Your task to perform on an android device: Open eBay Image 0: 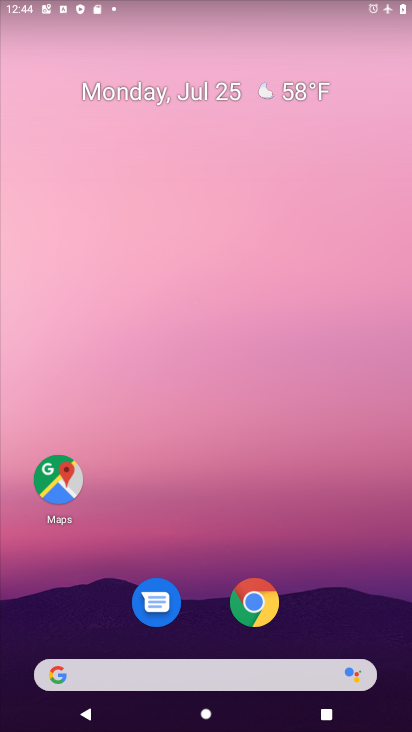
Step 0: click (245, 590)
Your task to perform on an android device: Open eBay Image 1: 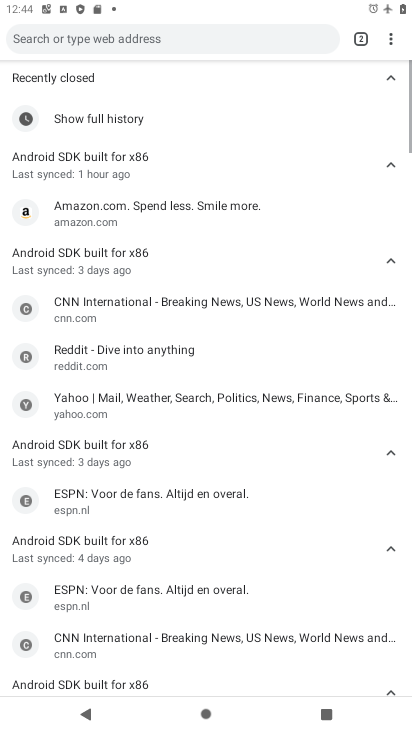
Step 1: click (355, 41)
Your task to perform on an android device: Open eBay Image 2: 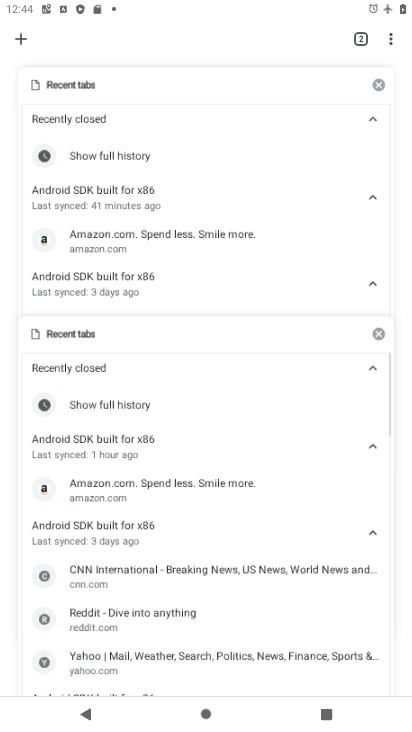
Step 2: click (10, 51)
Your task to perform on an android device: Open eBay Image 3: 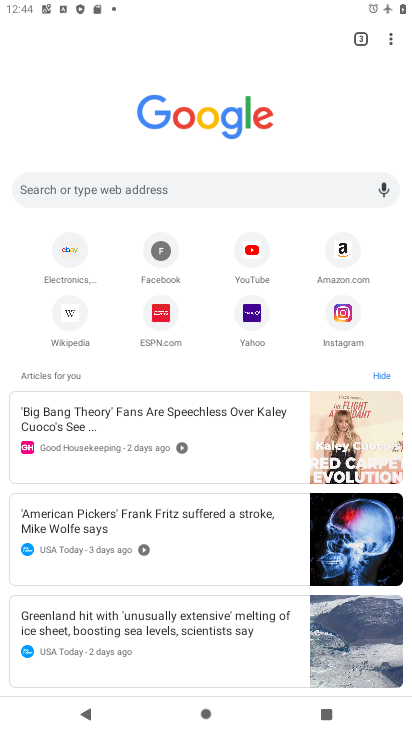
Step 3: click (67, 255)
Your task to perform on an android device: Open eBay Image 4: 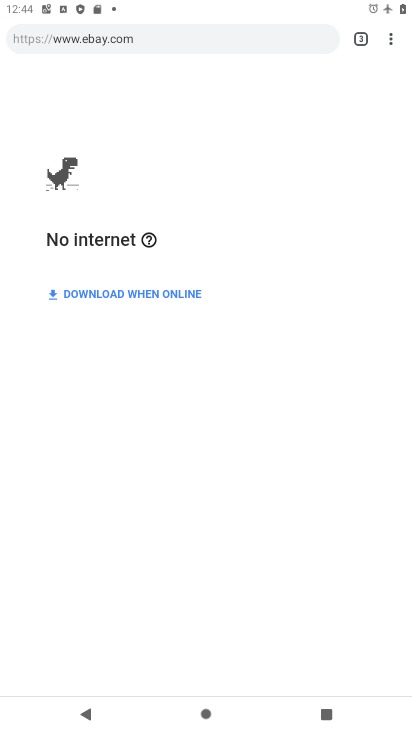
Step 4: task complete